Your task to perform on an android device: Open the calendar and show me this week's events? Image 0: 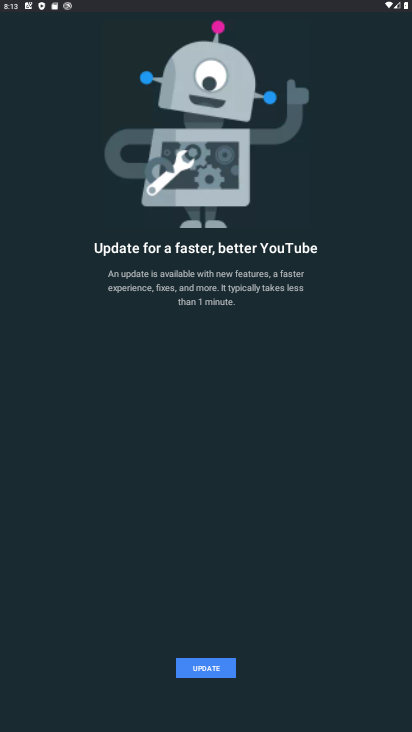
Step 0: press home button
Your task to perform on an android device: Open the calendar and show me this week's events? Image 1: 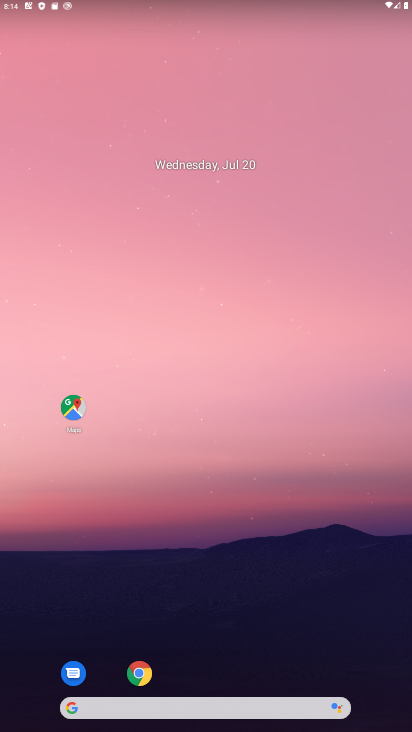
Step 1: drag from (190, 612) to (281, 1)
Your task to perform on an android device: Open the calendar and show me this week's events? Image 2: 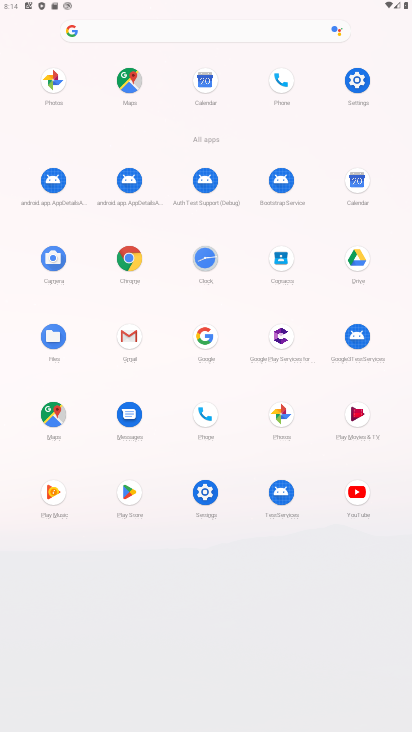
Step 2: click (358, 175)
Your task to perform on an android device: Open the calendar and show me this week's events? Image 3: 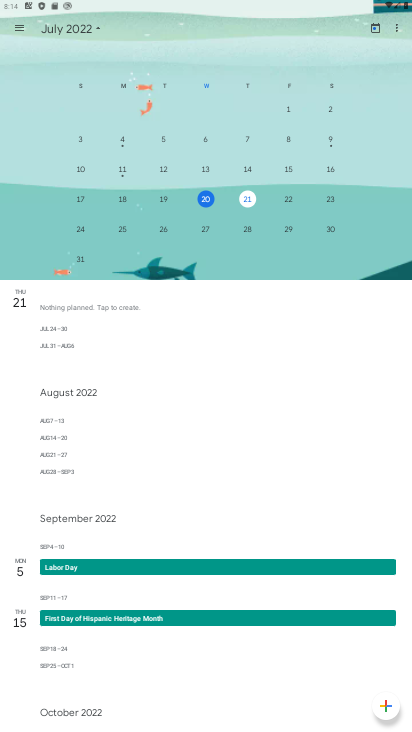
Step 3: click (334, 205)
Your task to perform on an android device: Open the calendar and show me this week's events? Image 4: 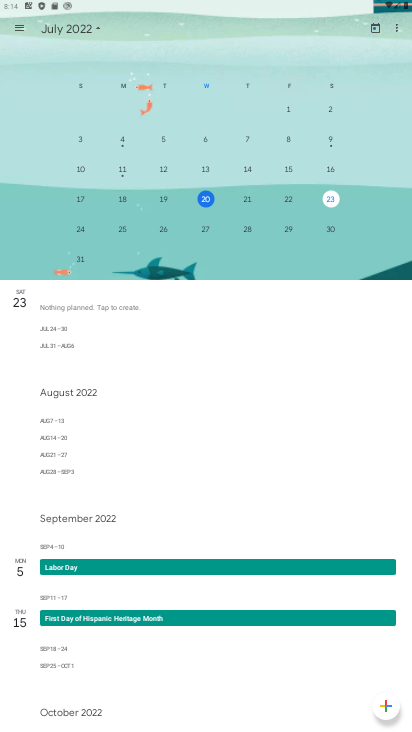
Step 4: click (329, 204)
Your task to perform on an android device: Open the calendar and show me this week's events? Image 5: 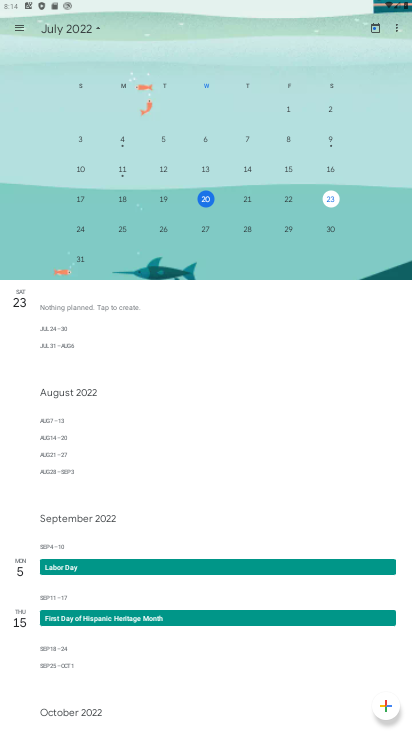
Step 5: drag from (276, 533) to (275, 367)
Your task to perform on an android device: Open the calendar and show me this week's events? Image 6: 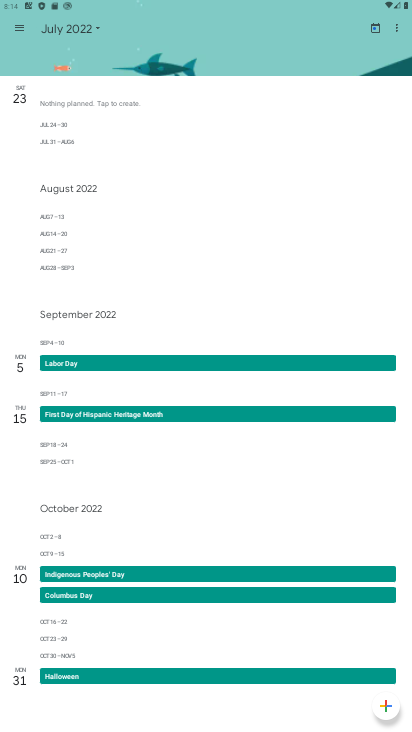
Step 6: drag from (247, 300) to (279, 510)
Your task to perform on an android device: Open the calendar and show me this week's events? Image 7: 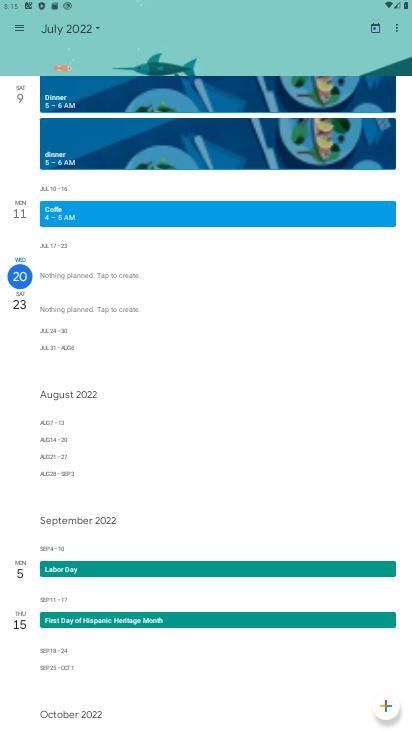
Step 7: drag from (316, 288) to (408, 433)
Your task to perform on an android device: Open the calendar and show me this week's events? Image 8: 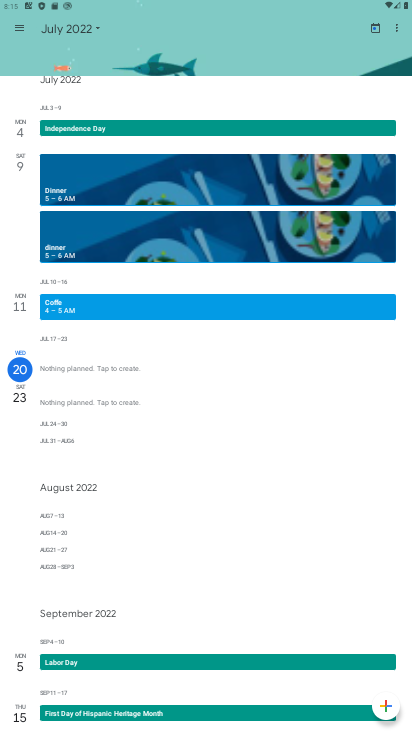
Step 8: click (85, 23)
Your task to perform on an android device: Open the calendar and show me this week's events? Image 9: 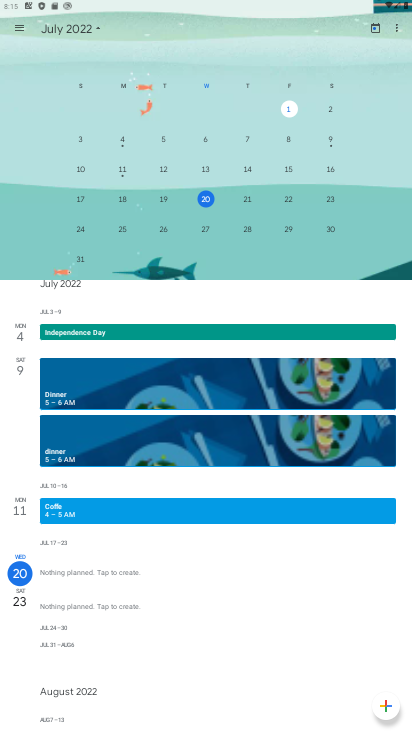
Step 9: click (329, 198)
Your task to perform on an android device: Open the calendar and show me this week's events? Image 10: 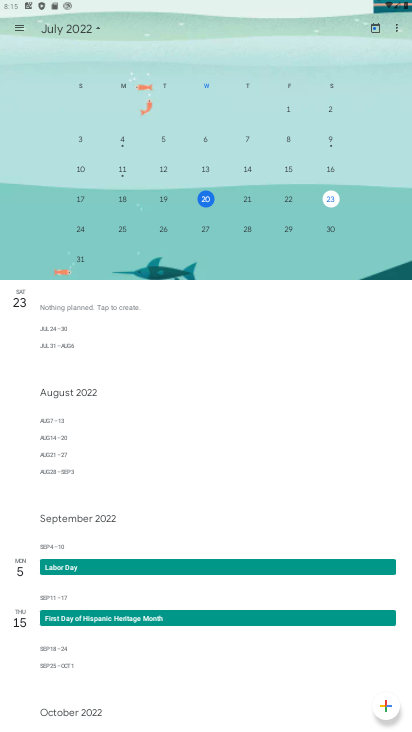
Step 10: task complete